Your task to perform on an android device: allow cookies in the chrome app Image 0: 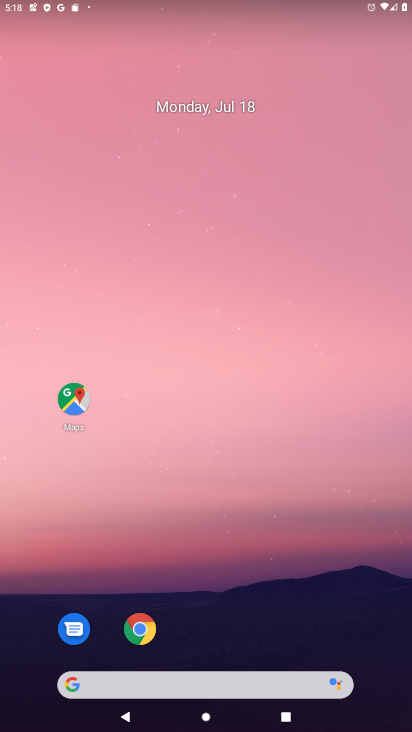
Step 0: drag from (219, 441) to (266, 4)
Your task to perform on an android device: allow cookies in the chrome app Image 1: 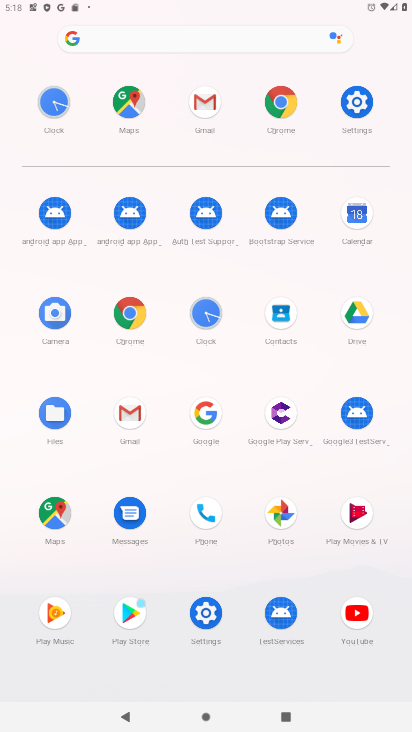
Step 1: click (282, 111)
Your task to perform on an android device: allow cookies in the chrome app Image 2: 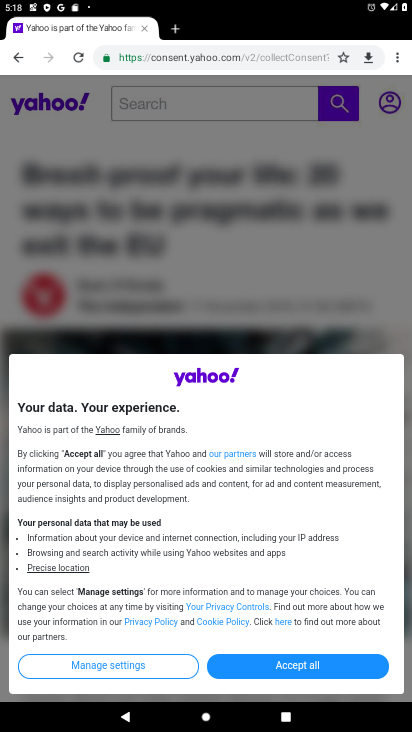
Step 2: drag from (391, 52) to (290, 382)
Your task to perform on an android device: allow cookies in the chrome app Image 3: 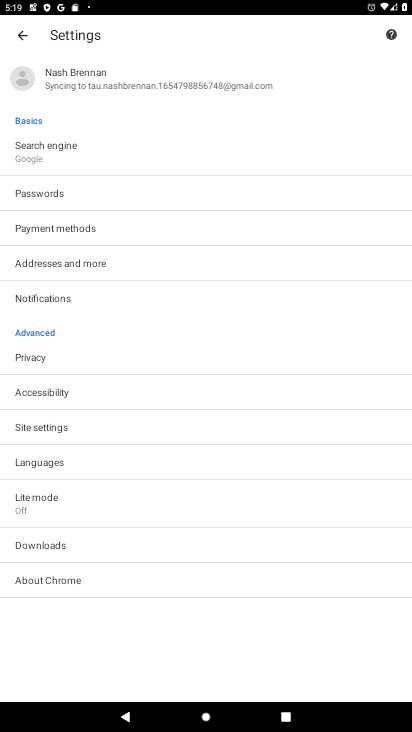
Step 3: click (42, 423)
Your task to perform on an android device: allow cookies in the chrome app Image 4: 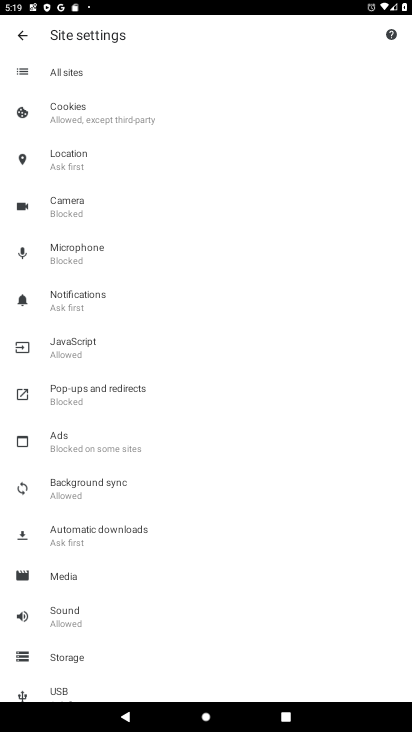
Step 4: click (76, 111)
Your task to perform on an android device: allow cookies in the chrome app Image 5: 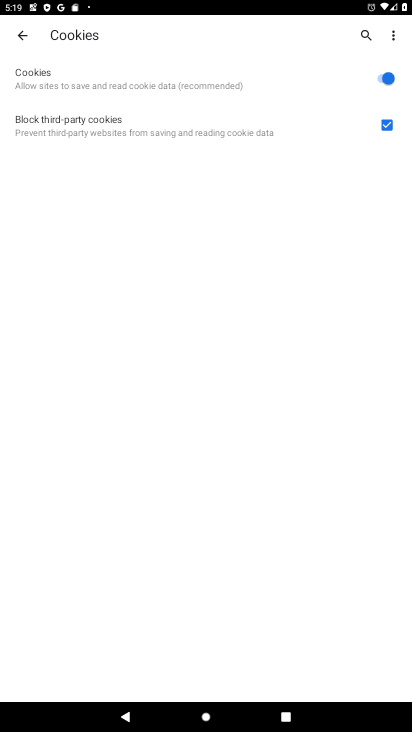
Step 5: task complete